Your task to perform on an android device: toggle sleep mode Image 0: 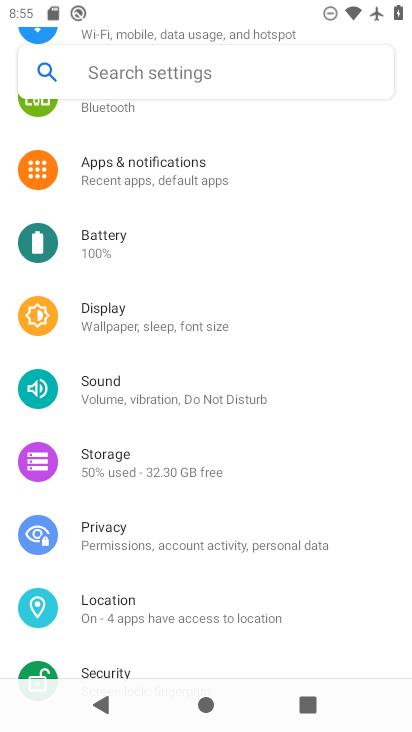
Step 0: press home button
Your task to perform on an android device: toggle sleep mode Image 1: 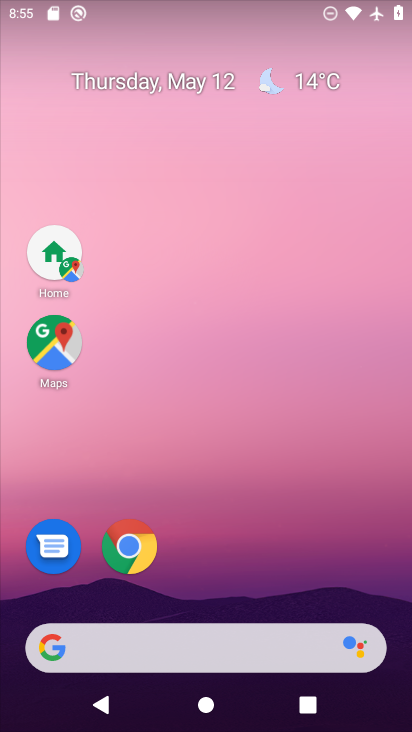
Step 1: drag from (180, 654) to (318, 158)
Your task to perform on an android device: toggle sleep mode Image 2: 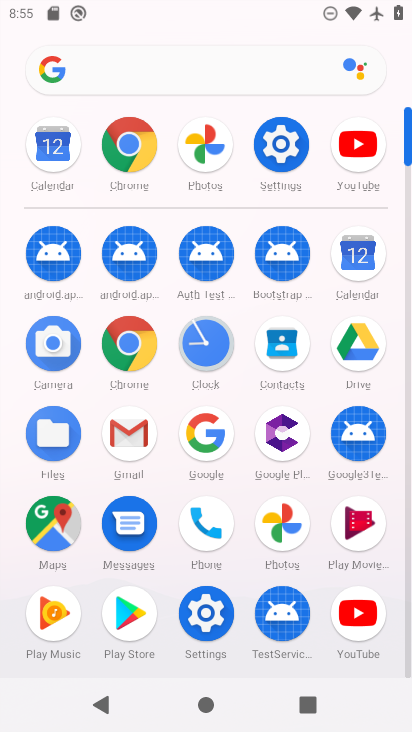
Step 2: click (276, 151)
Your task to perform on an android device: toggle sleep mode Image 3: 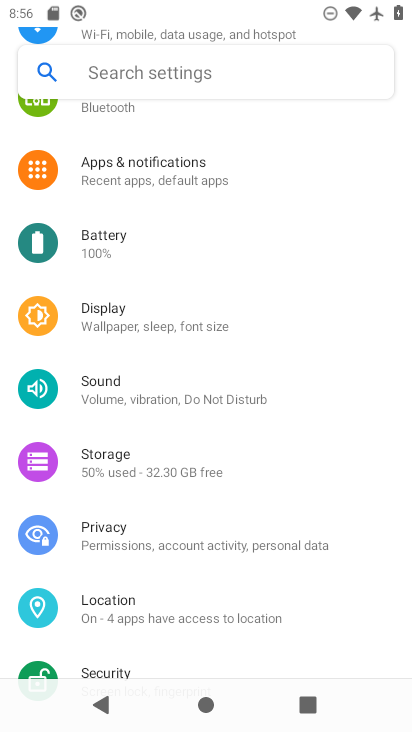
Step 3: click (182, 334)
Your task to perform on an android device: toggle sleep mode Image 4: 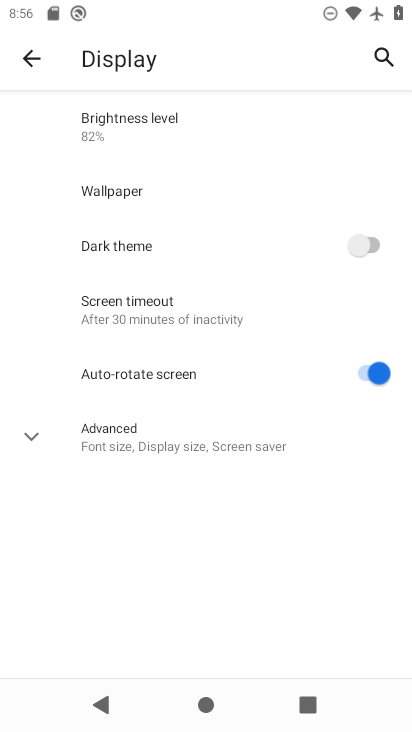
Step 4: task complete